Your task to perform on an android device: Open the phone app and click the voicemail tab. Image 0: 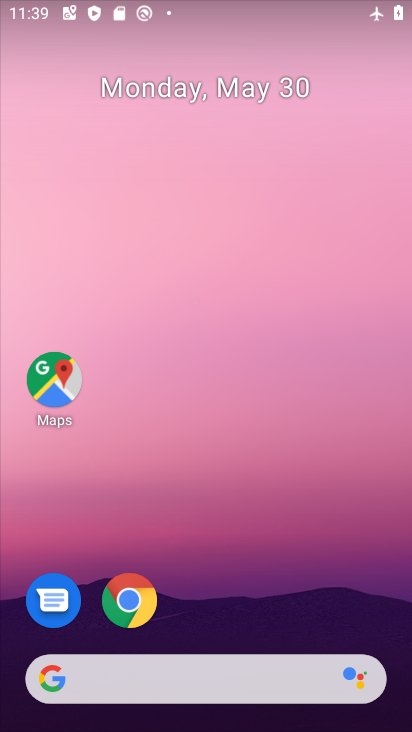
Step 0: drag from (232, 721) to (255, 6)
Your task to perform on an android device: Open the phone app and click the voicemail tab. Image 1: 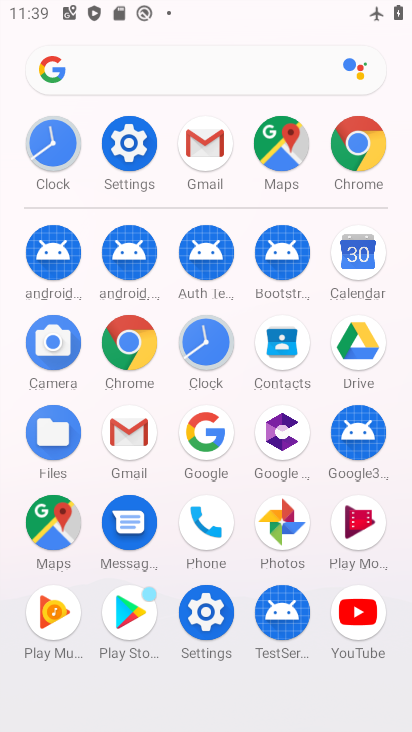
Step 1: click (207, 522)
Your task to perform on an android device: Open the phone app and click the voicemail tab. Image 2: 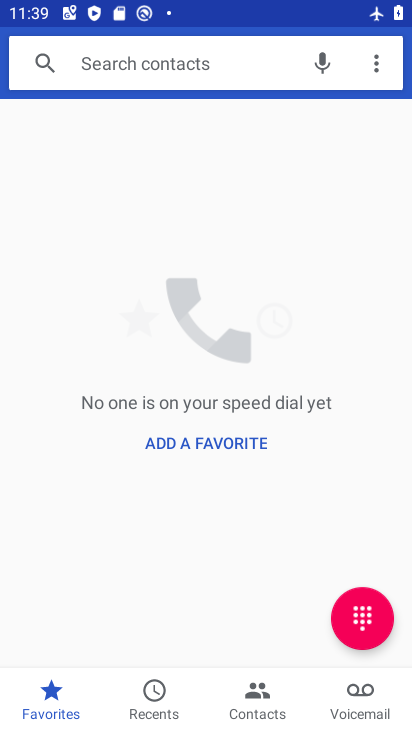
Step 2: click (358, 695)
Your task to perform on an android device: Open the phone app and click the voicemail tab. Image 3: 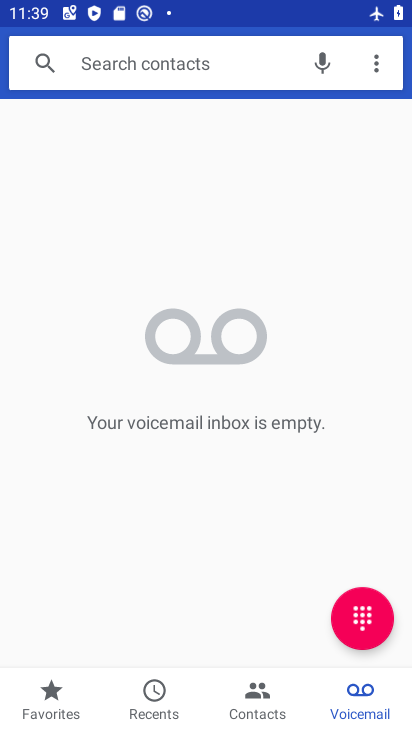
Step 3: task complete